Your task to perform on an android device: search for starred emails in the gmail app Image 0: 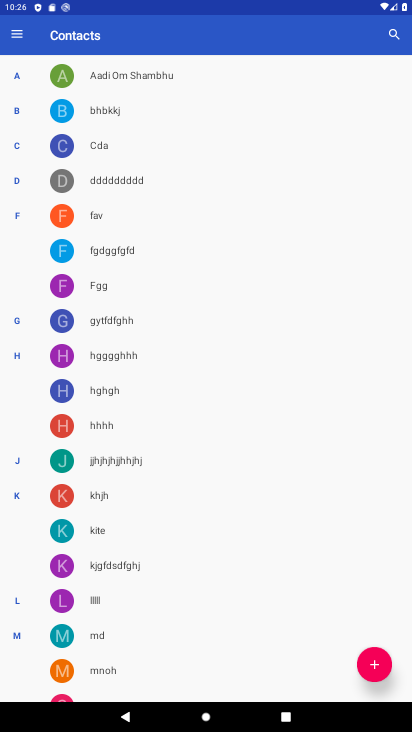
Step 0: press home button
Your task to perform on an android device: search for starred emails in the gmail app Image 1: 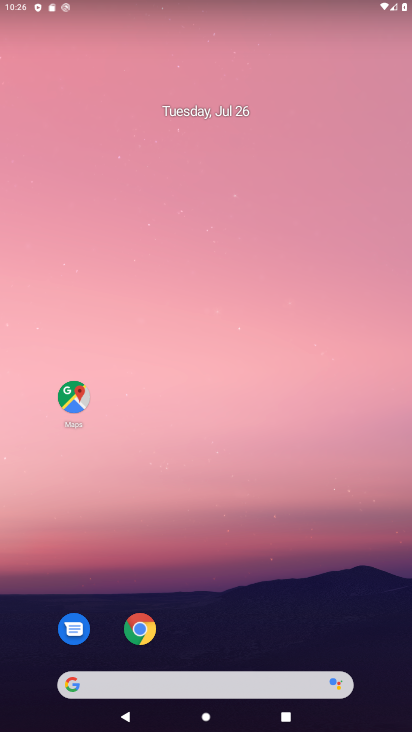
Step 1: drag from (241, 648) to (220, 320)
Your task to perform on an android device: search for starred emails in the gmail app Image 2: 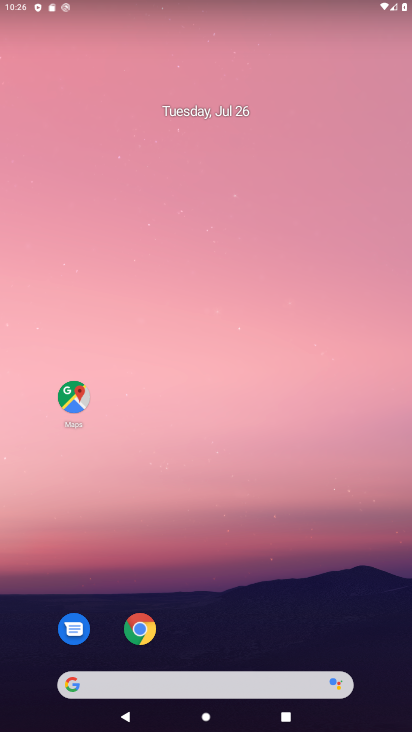
Step 2: drag from (248, 646) to (311, 222)
Your task to perform on an android device: search for starred emails in the gmail app Image 3: 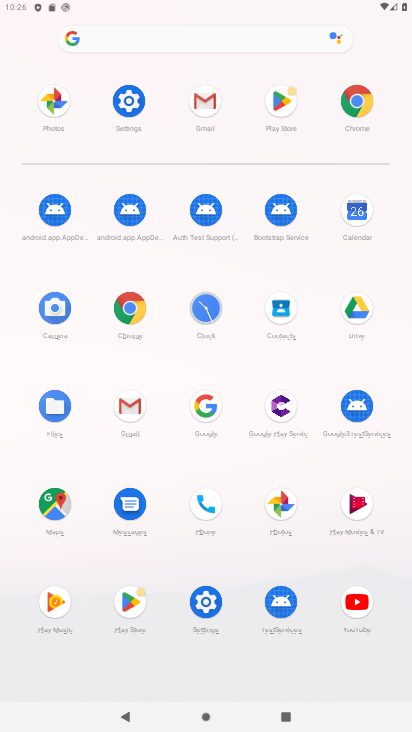
Step 3: click (198, 111)
Your task to perform on an android device: search for starred emails in the gmail app Image 4: 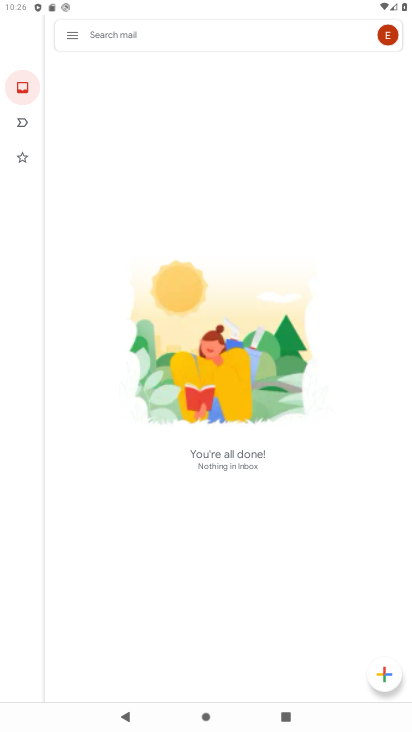
Step 4: click (67, 45)
Your task to perform on an android device: search for starred emails in the gmail app Image 5: 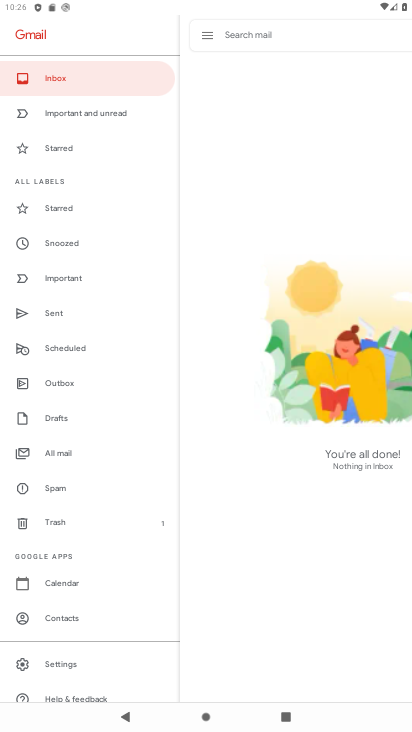
Step 5: click (81, 214)
Your task to perform on an android device: search for starred emails in the gmail app Image 6: 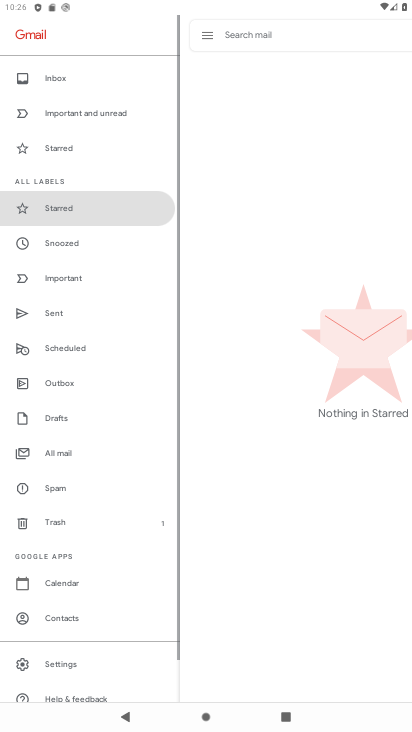
Step 6: task complete